Your task to perform on an android device: See recent photos Image 0: 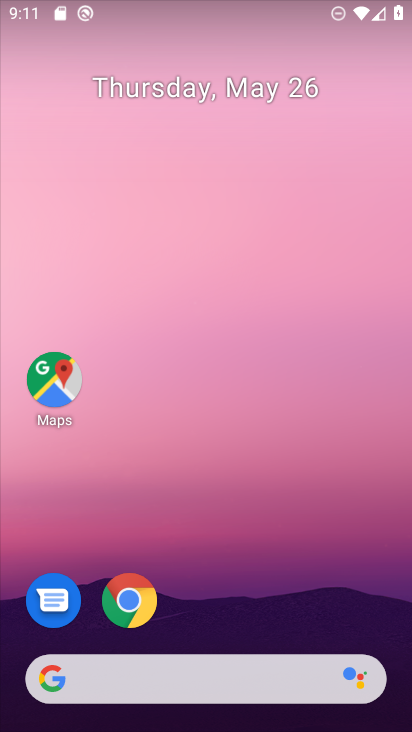
Step 0: drag from (233, 668) to (253, 252)
Your task to perform on an android device: See recent photos Image 1: 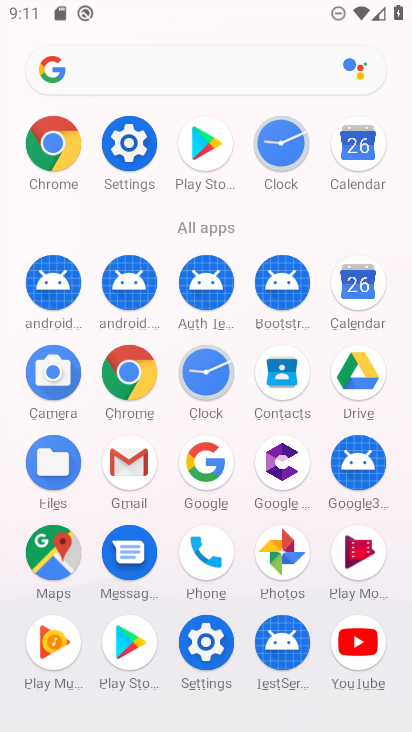
Step 1: click (283, 542)
Your task to perform on an android device: See recent photos Image 2: 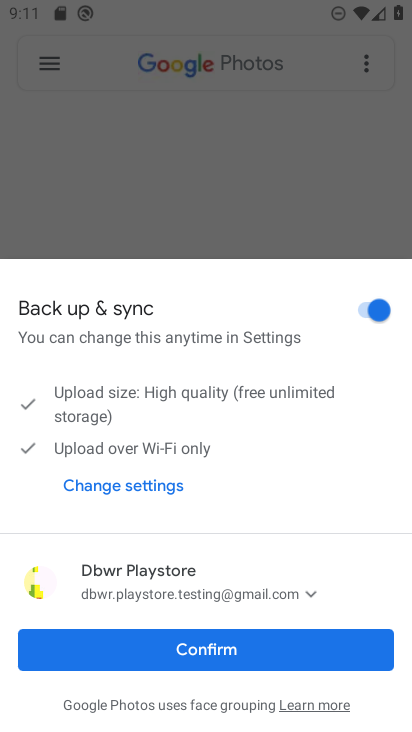
Step 2: click (208, 643)
Your task to perform on an android device: See recent photos Image 3: 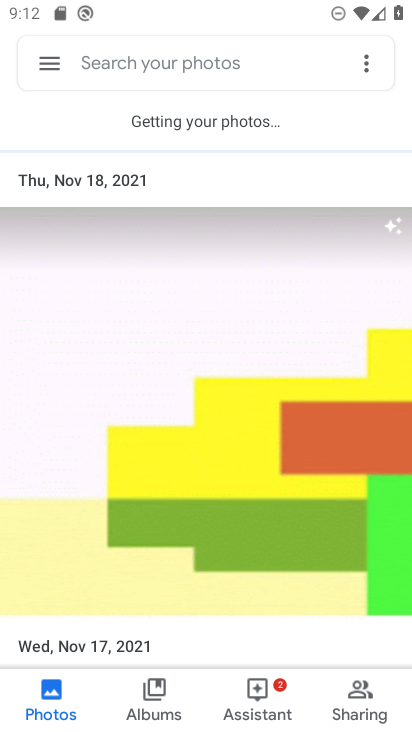
Step 3: task complete